Your task to perform on an android device: Open Yahoo.com Image 0: 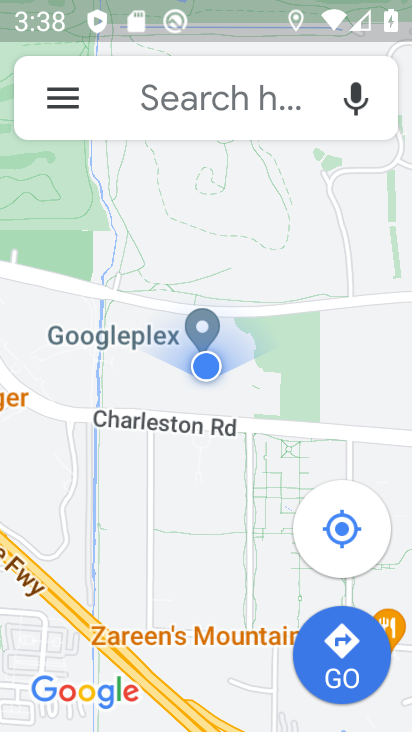
Step 0: press home button
Your task to perform on an android device: Open Yahoo.com Image 1: 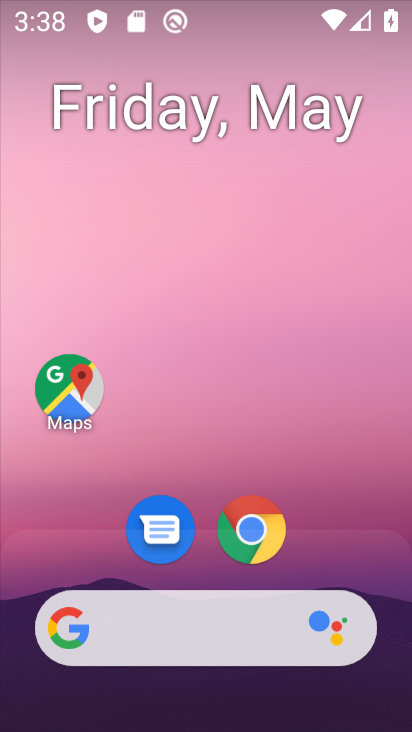
Step 1: click (239, 511)
Your task to perform on an android device: Open Yahoo.com Image 2: 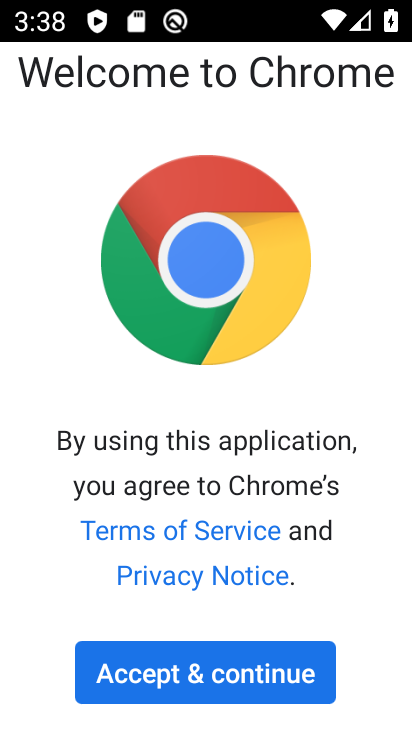
Step 2: click (150, 674)
Your task to perform on an android device: Open Yahoo.com Image 3: 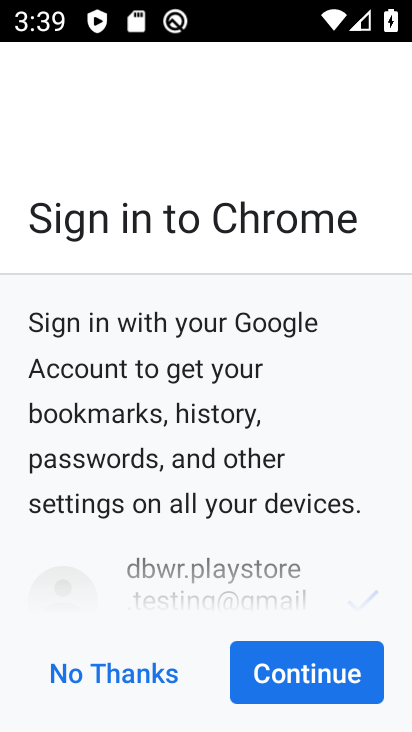
Step 3: click (295, 690)
Your task to perform on an android device: Open Yahoo.com Image 4: 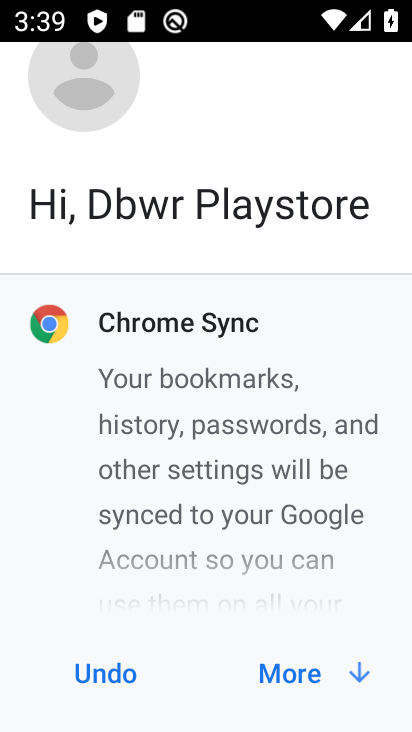
Step 4: click (295, 690)
Your task to perform on an android device: Open Yahoo.com Image 5: 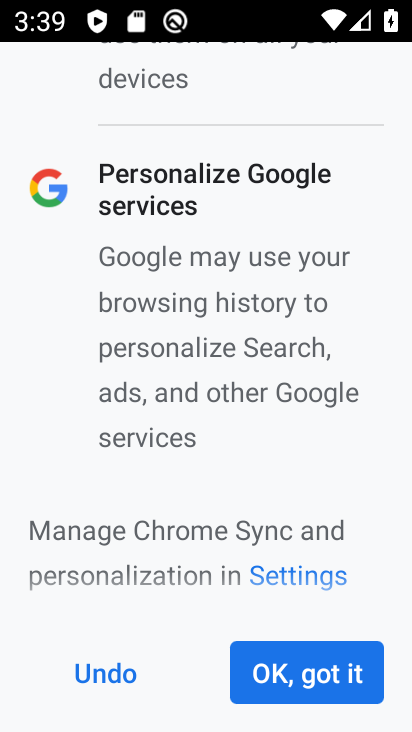
Step 5: click (295, 690)
Your task to perform on an android device: Open Yahoo.com Image 6: 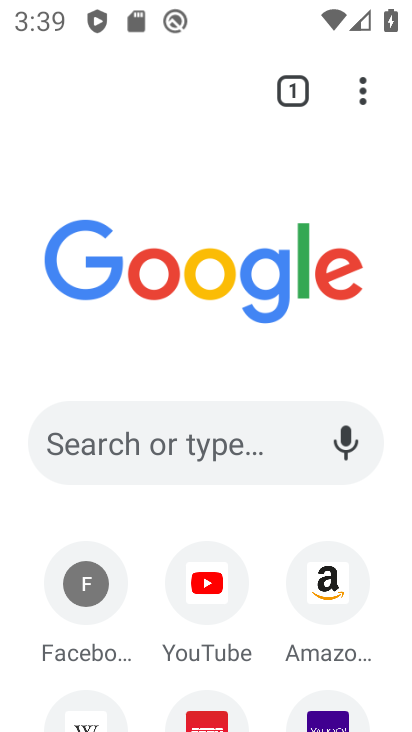
Step 6: drag from (231, 643) to (269, 388)
Your task to perform on an android device: Open Yahoo.com Image 7: 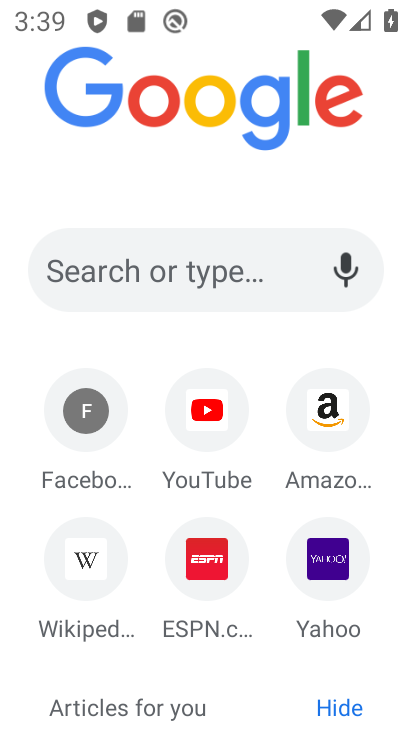
Step 7: click (319, 580)
Your task to perform on an android device: Open Yahoo.com Image 8: 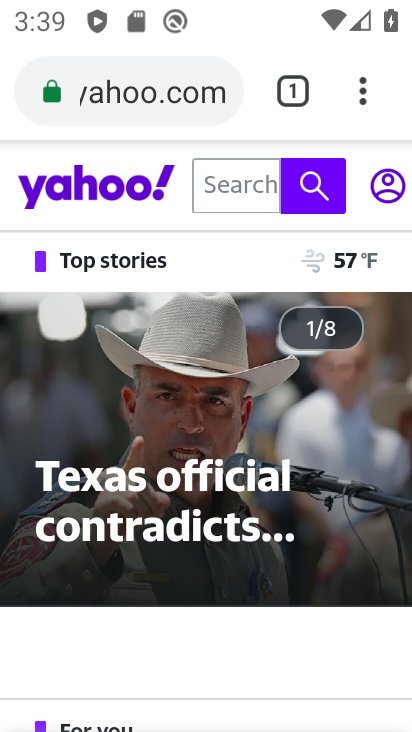
Step 8: task complete